Your task to perform on an android device: all mails in gmail Image 0: 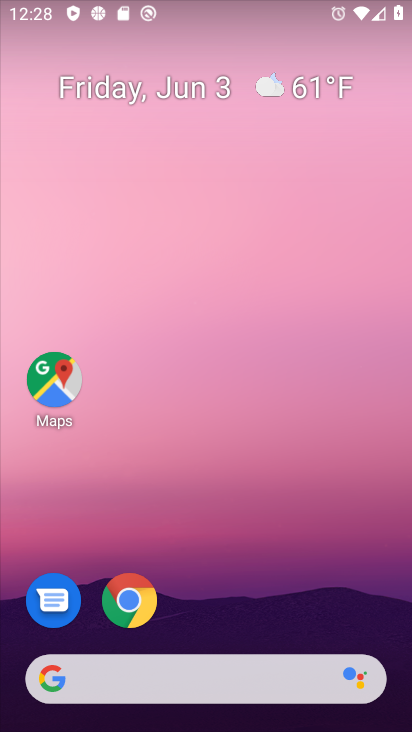
Step 0: drag from (292, 589) to (223, 174)
Your task to perform on an android device: all mails in gmail Image 1: 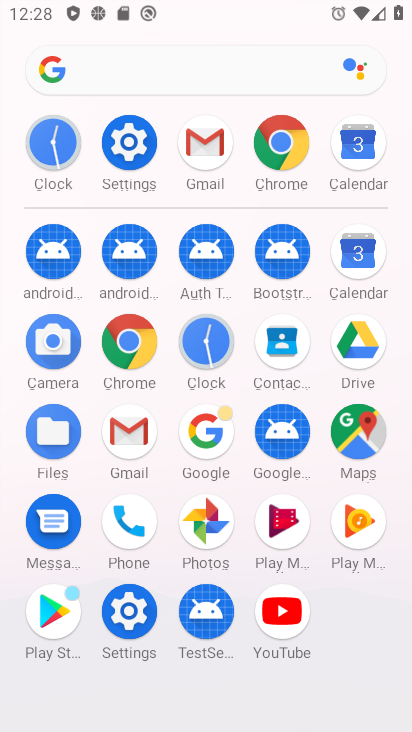
Step 1: click (211, 165)
Your task to perform on an android device: all mails in gmail Image 2: 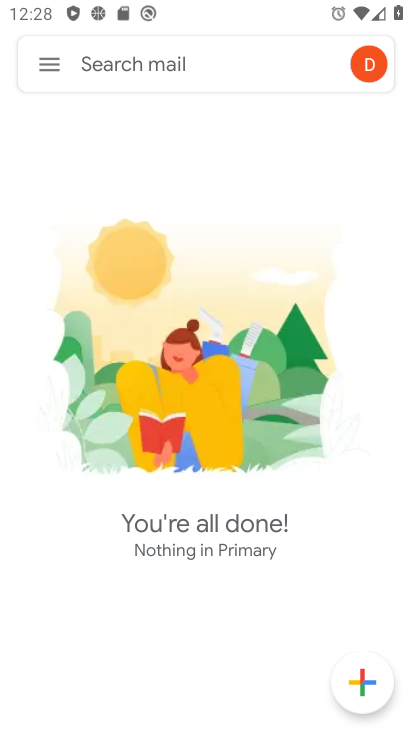
Step 2: click (42, 69)
Your task to perform on an android device: all mails in gmail Image 3: 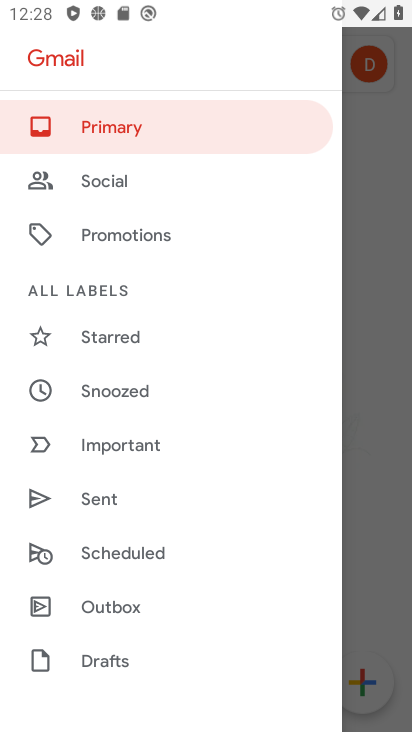
Step 3: drag from (131, 586) to (142, 198)
Your task to perform on an android device: all mails in gmail Image 4: 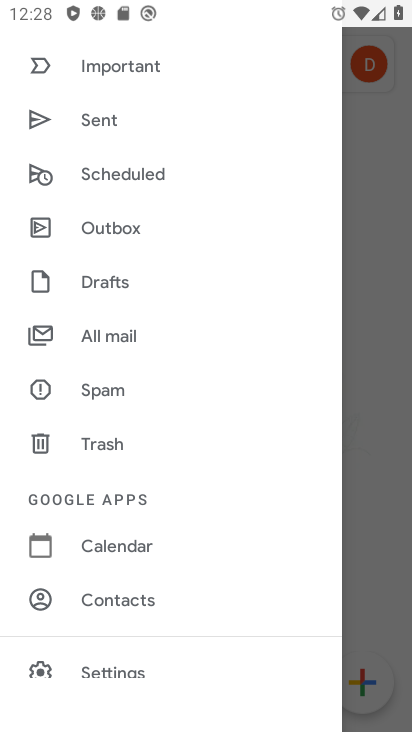
Step 4: drag from (131, 551) to (171, 260)
Your task to perform on an android device: all mails in gmail Image 5: 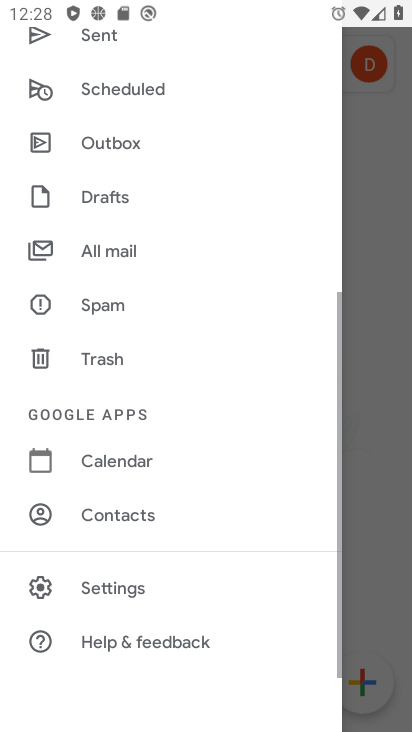
Step 5: click (122, 250)
Your task to perform on an android device: all mails in gmail Image 6: 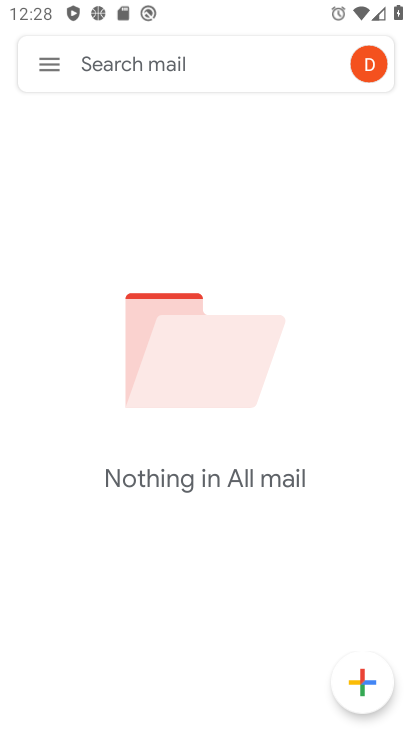
Step 6: task complete